Your task to perform on an android device: change notifications settings Image 0: 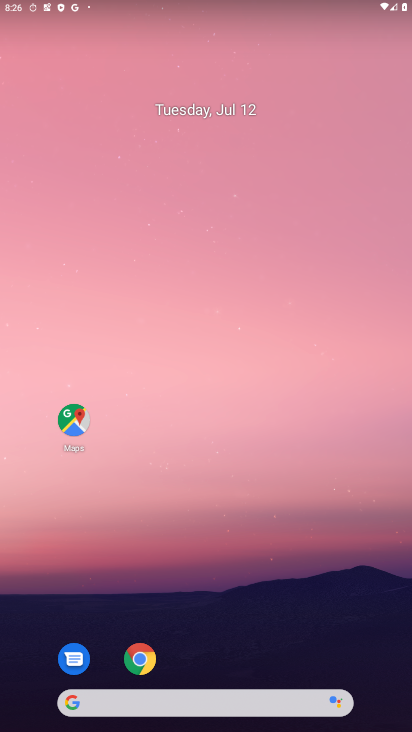
Step 0: drag from (362, 708) to (278, 180)
Your task to perform on an android device: change notifications settings Image 1: 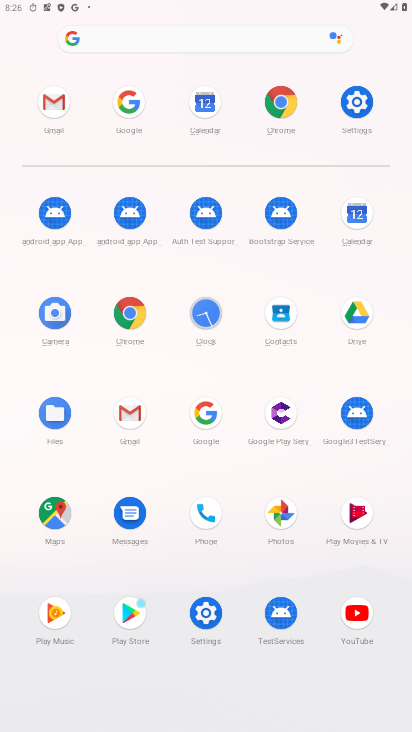
Step 1: click (202, 620)
Your task to perform on an android device: change notifications settings Image 2: 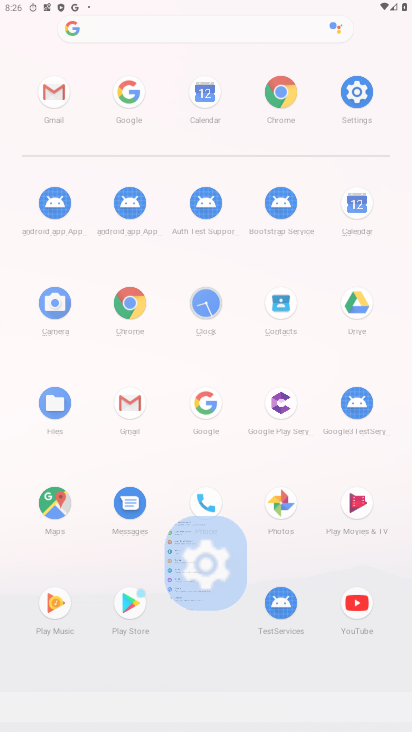
Step 2: click (202, 620)
Your task to perform on an android device: change notifications settings Image 3: 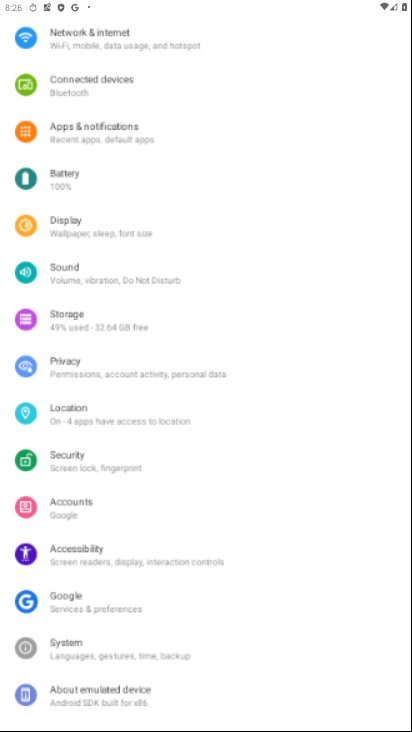
Step 3: click (202, 620)
Your task to perform on an android device: change notifications settings Image 4: 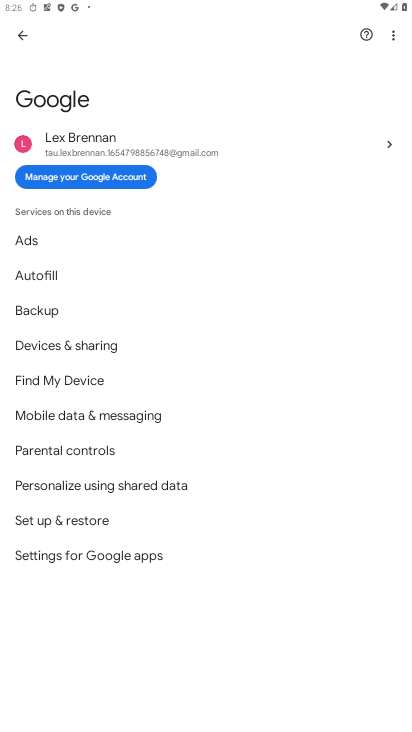
Step 4: click (14, 36)
Your task to perform on an android device: change notifications settings Image 5: 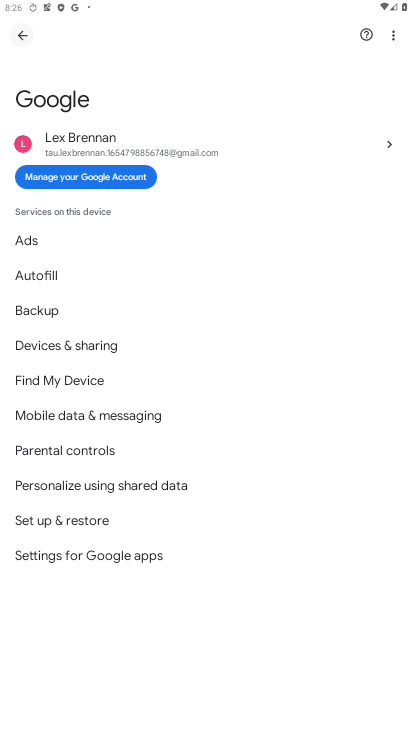
Step 5: click (23, 27)
Your task to perform on an android device: change notifications settings Image 6: 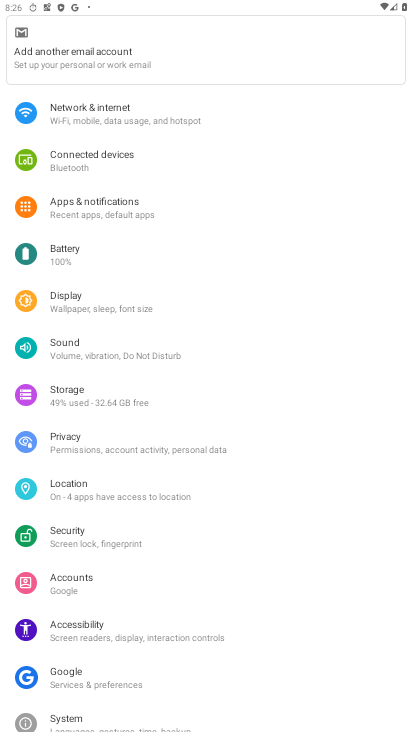
Step 6: click (107, 203)
Your task to perform on an android device: change notifications settings Image 7: 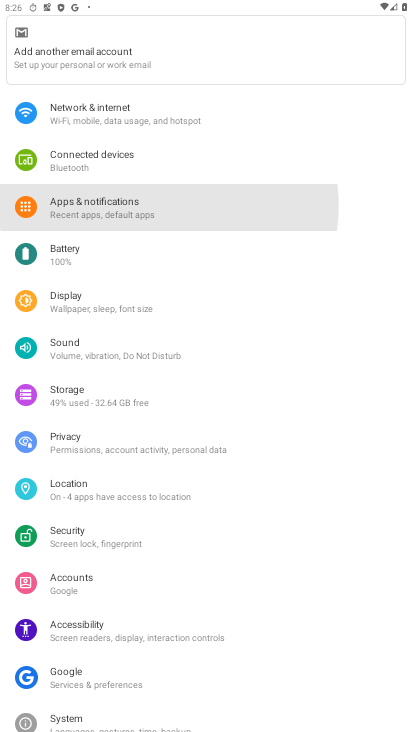
Step 7: click (108, 204)
Your task to perform on an android device: change notifications settings Image 8: 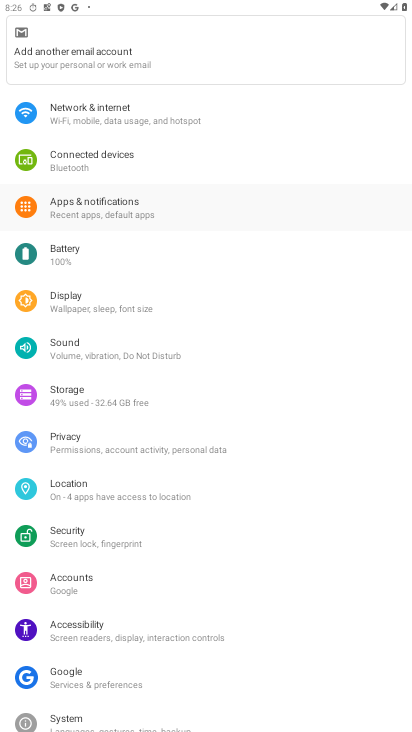
Step 8: click (110, 205)
Your task to perform on an android device: change notifications settings Image 9: 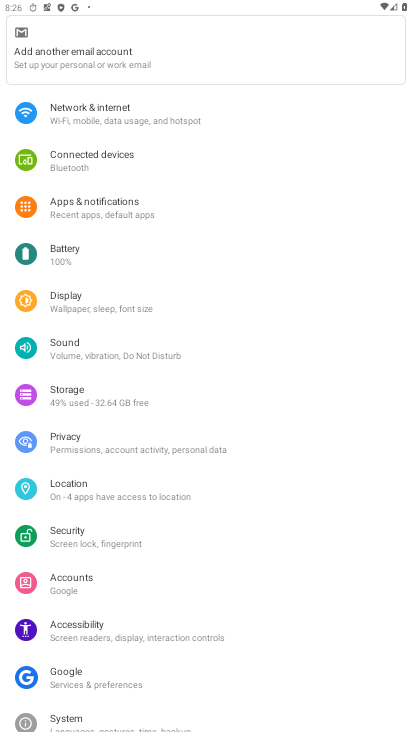
Step 9: click (111, 206)
Your task to perform on an android device: change notifications settings Image 10: 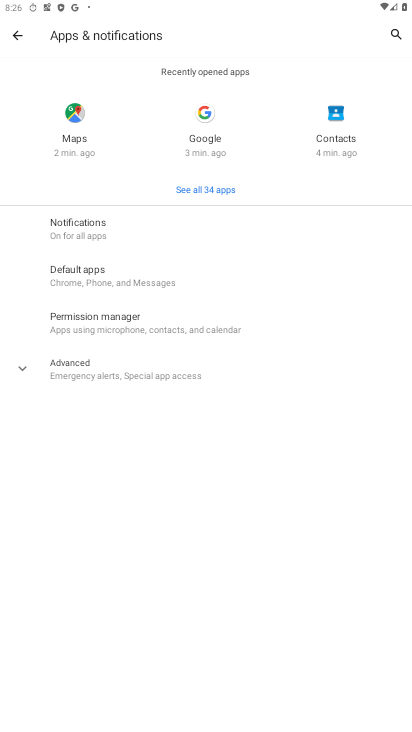
Step 10: click (78, 222)
Your task to perform on an android device: change notifications settings Image 11: 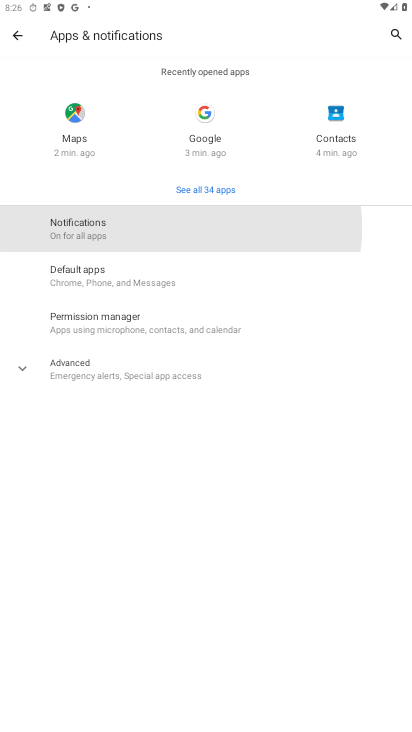
Step 11: click (78, 222)
Your task to perform on an android device: change notifications settings Image 12: 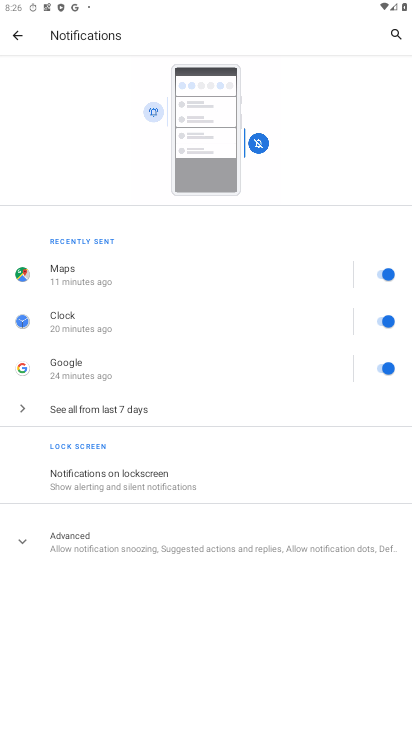
Step 12: click (392, 270)
Your task to perform on an android device: change notifications settings Image 13: 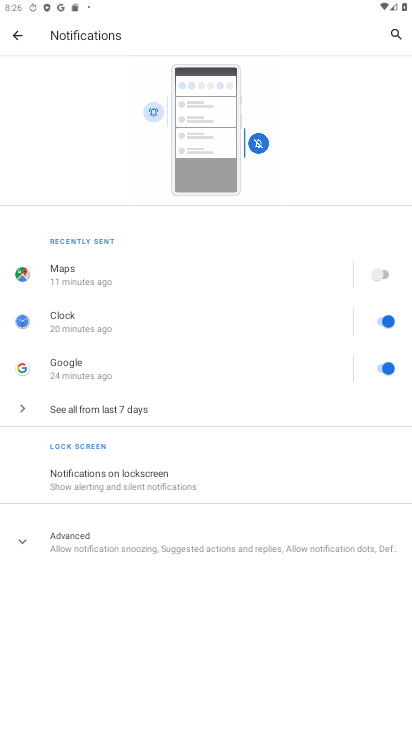
Step 13: click (392, 320)
Your task to perform on an android device: change notifications settings Image 14: 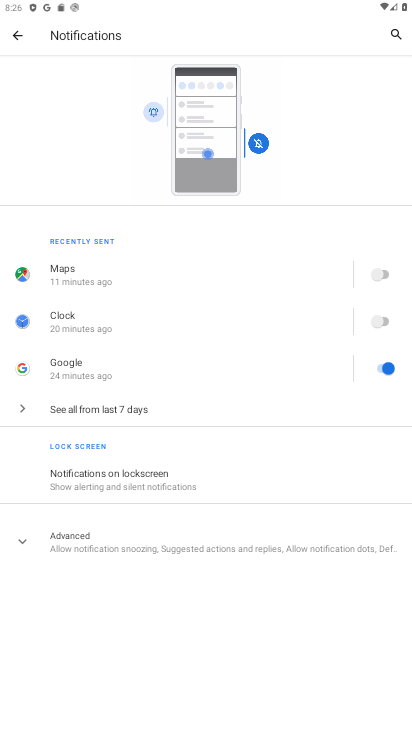
Step 14: click (388, 369)
Your task to perform on an android device: change notifications settings Image 15: 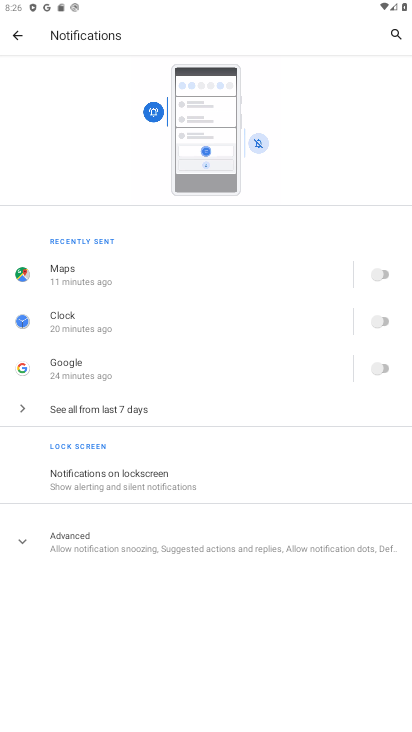
Step 15: task complete